Your task to perform on an android device: Open Google Maps Image 0: 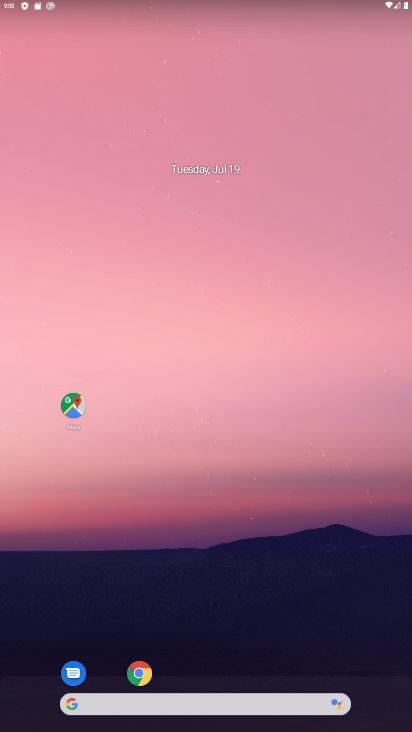
Step 0: drag from (324, 589) to (325, 81)
Your task to perform on an android device: Open Google Maps Image 1: 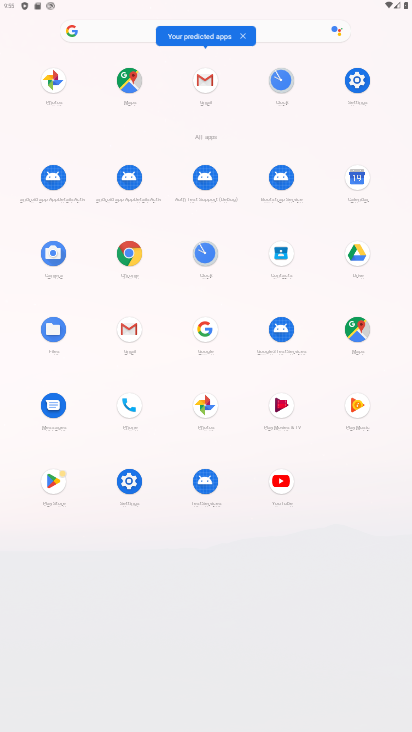
Step 1: click (354, 332)
Your task to perform on an android device: Open Google Maps Image 2: 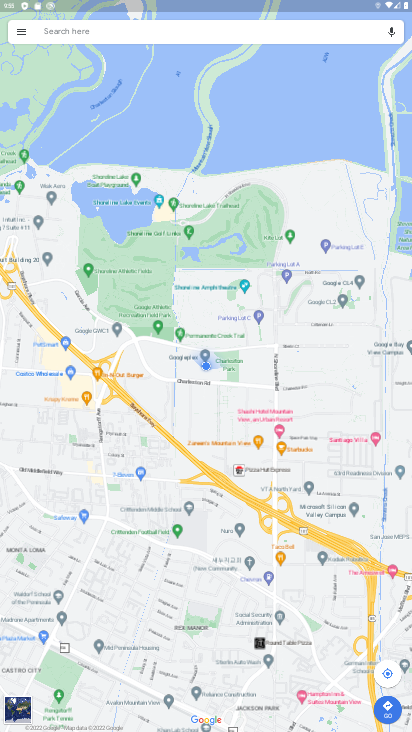
Step 2: task complete